Your task to perform on an android device: change the upload size in google photos Image 0: 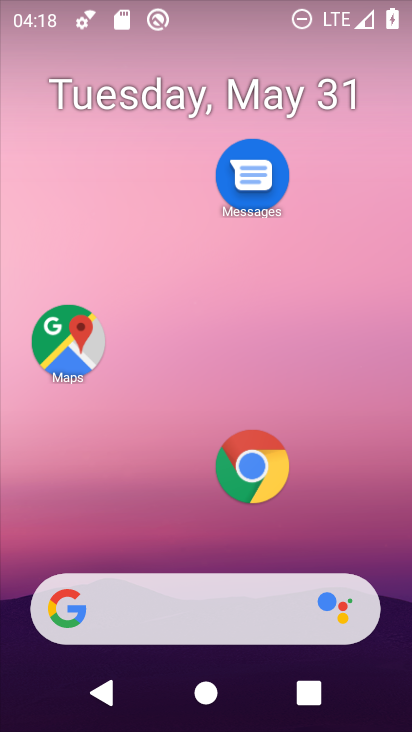
Step 0: drag from (158, 536) to (224, 34)
Your task to perform on an android device: change the upload size in google photos Image 1: 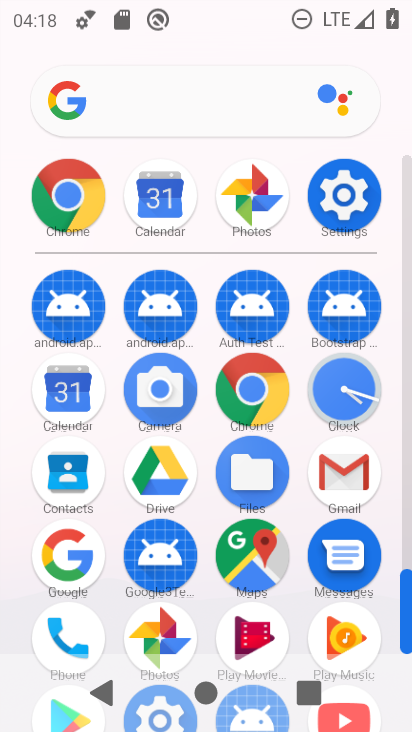
Step 1: click (152, 619)
Your task to perform on an android device: change the upload size in google photos Image 2: 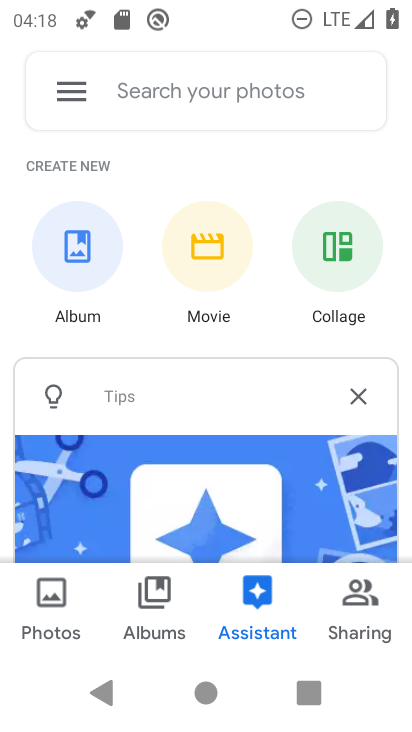
Step 2: click (66, 85)
Your task to perform on an android device: change the upload size in google photos Image 3: 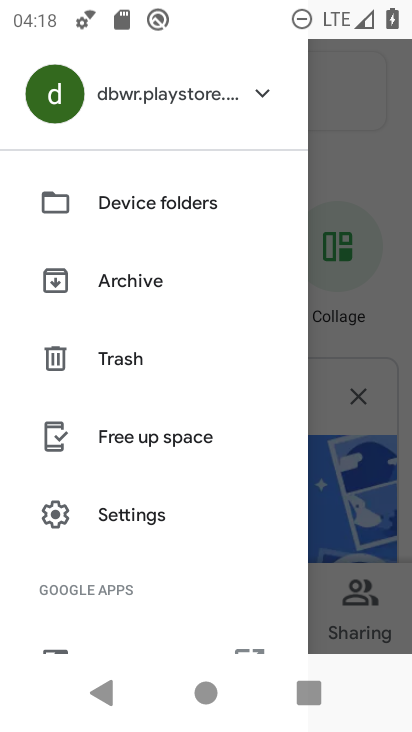
Step 3: click (142, 518)
Your task to perform on an android device: change the upload size in google photos Image 4: 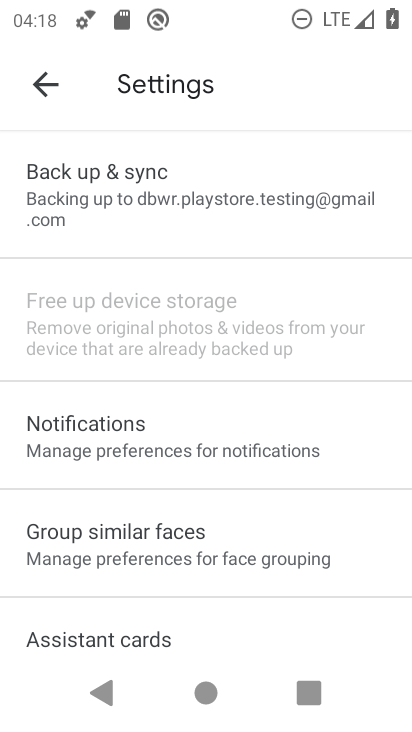
Step 4: click (227, 186)
Your task to perform on an android device: change the upload size in google photos Image 5: 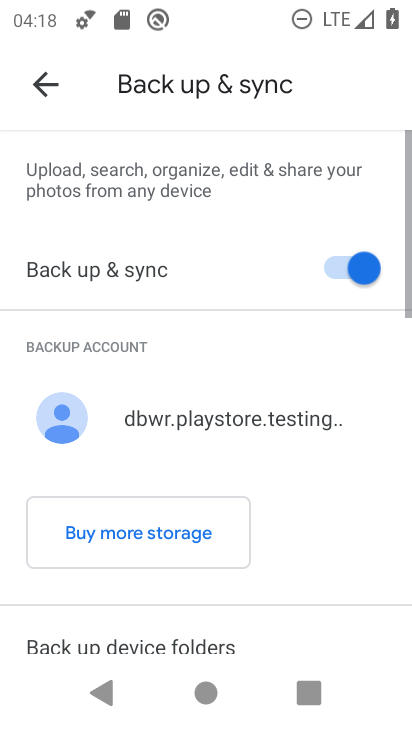
Step 5: drag from (197, 581) to (291, 121)
Your task to perform on an android device: change the upload size in google photos Image 6: 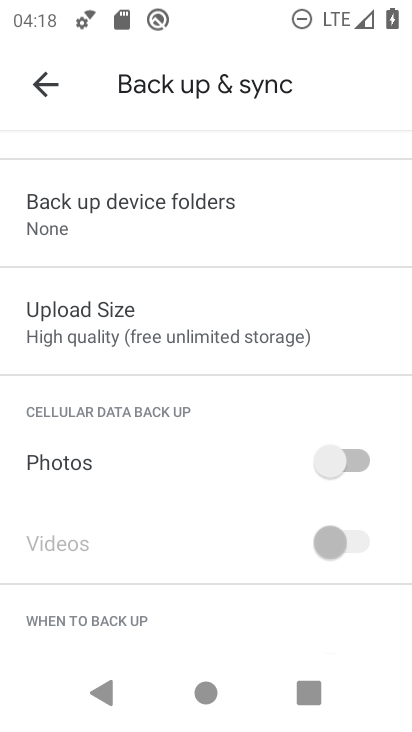
Step 6: click (138, 317)
Your task to perform on an android device: change the upload size in google photos Image 7: 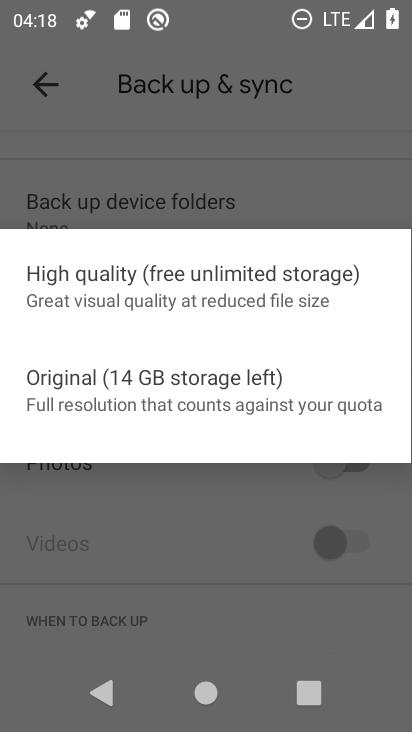
Step 7: click (101, 395)
Your task to perform on an android device: change the upload size in google photos Image 8: 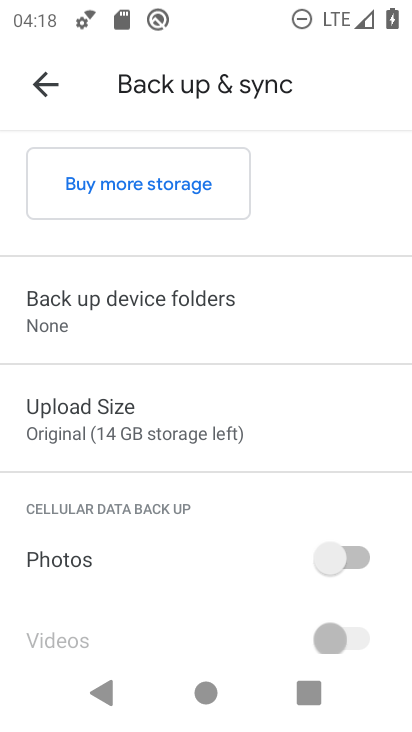
Step 8: task complete